Your task to perform on an android device: manage bookmarks in the chrome app Image 0: 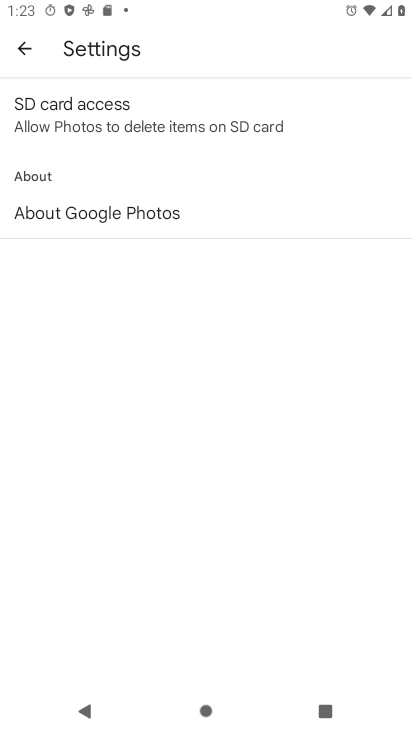
Step 0: press home button
Your task to perform on an android device: manage bookmarks in the chrome app Image 1: 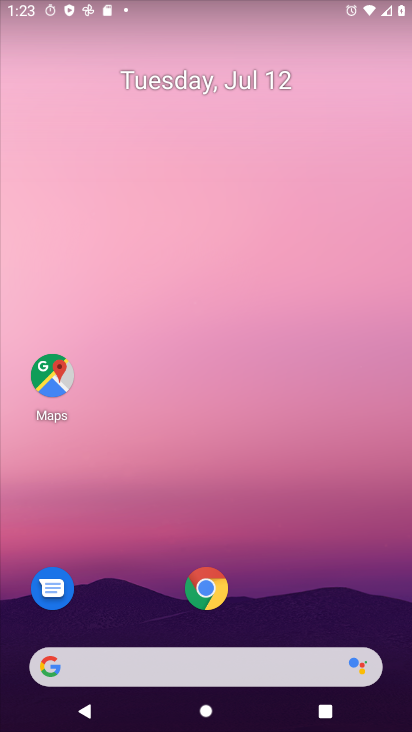
Step 1: click (213, 585)
Your task to perform on an android device: manage bookmarks in the chrome app Image 2: 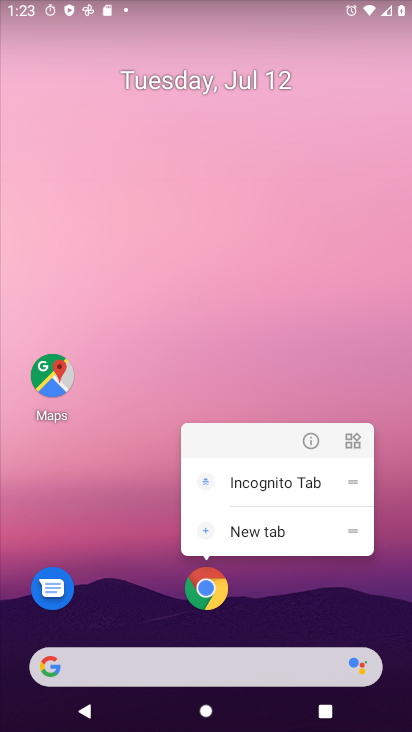
Step 2: click (212, 585)
Your task to perform on an android device: manage bookmarks in the chrome app Image 3: 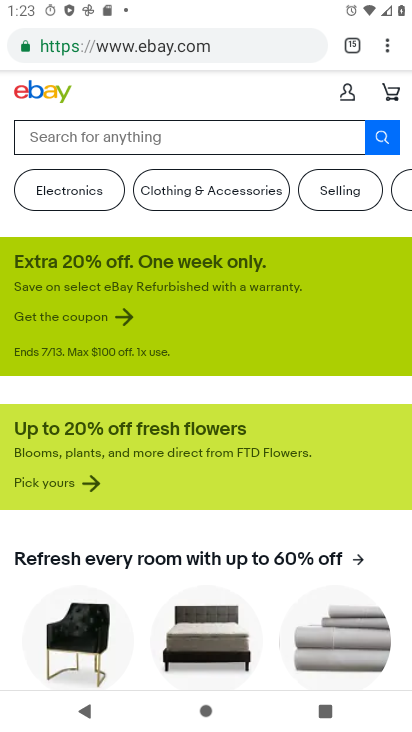
Step 3: task complete